Your task to perform on an android device: Search for Italian restaurants on Maps Image 0: 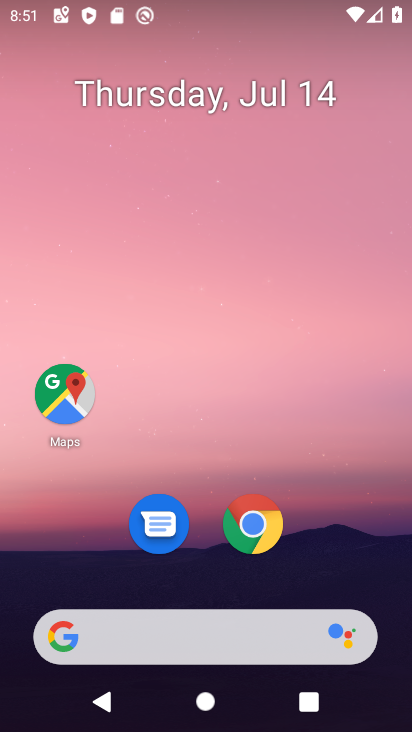
Step 0: click (64, 386)
Your task to perform on an android device: Search for Italian restaurants on Maps Image 1: 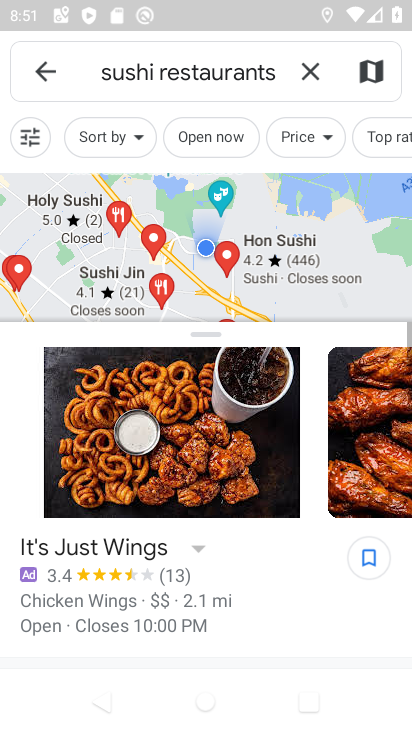
Step 1: click (309, 59)
Your task to perform on an android device: Search for Italian restaurants on Maps Image 2: 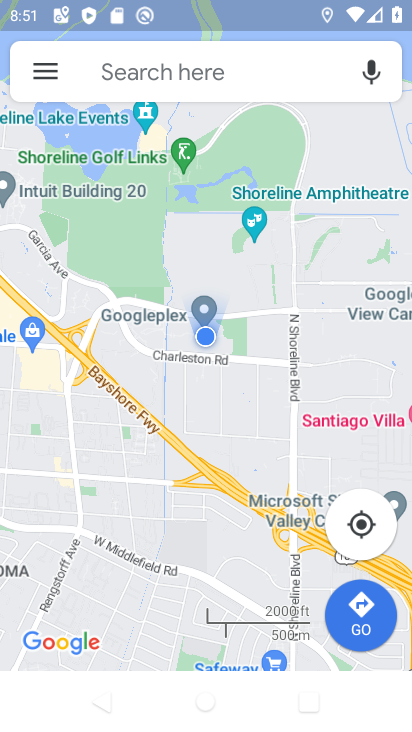
Step 2: click (279, 72)
Your task to perform on an android device: Search for Italian restaurants on Maps Image 3: 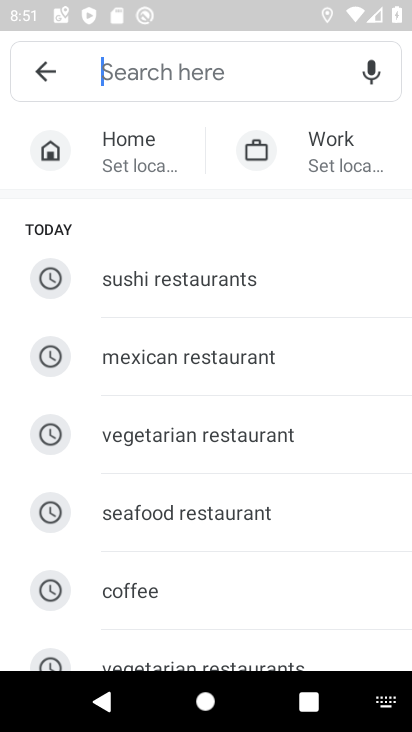
Step 3: drag from (221, 501) to (225, 300)
Your task to perform on an android device: Search for Italian restaurants on Maps Image 4: 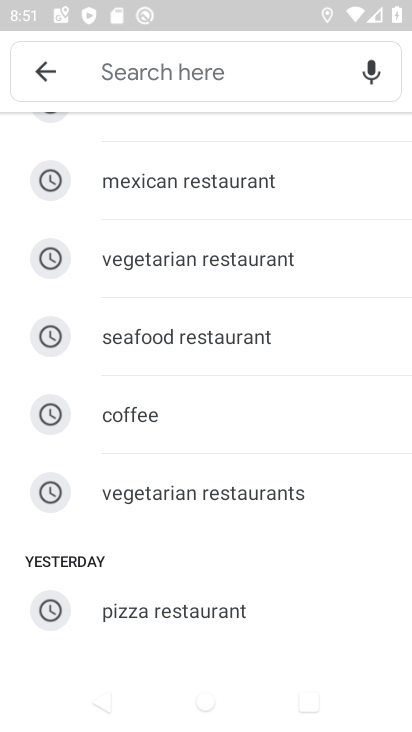
Step 4: drag from (206, 231) to (219, 552)
Your task to perform on an android device: Search for Italian restaurants on Maps Image 5: 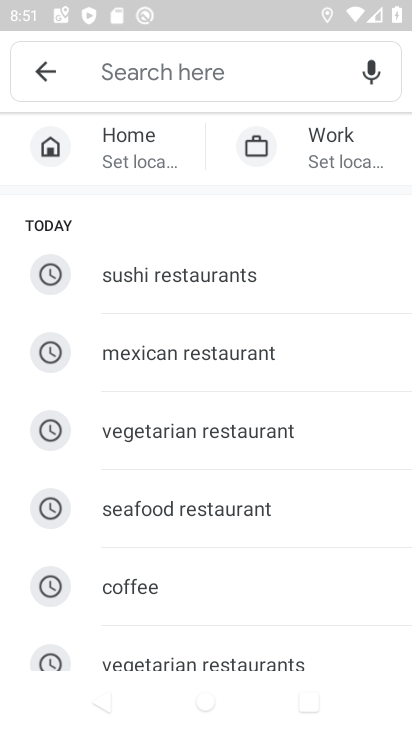
Step 5: click (228, 58)
Your task to perform on an android device: Search for Italian restaurants on Maps Image 6: 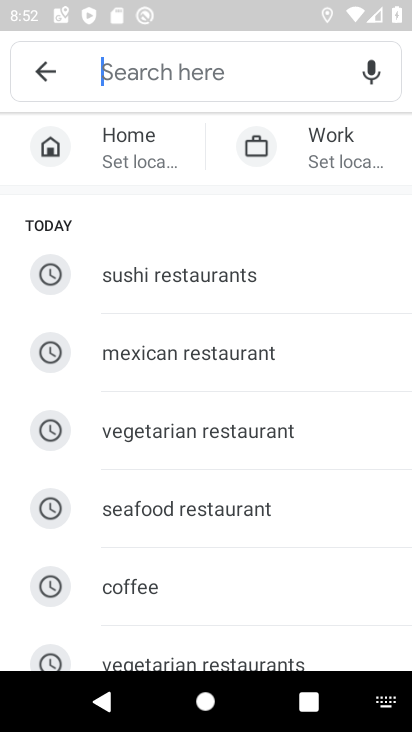
Step 6: type "italian restaurants"
Your task to perform on an android device: Search for Italian restaurants on Maps Image 7: 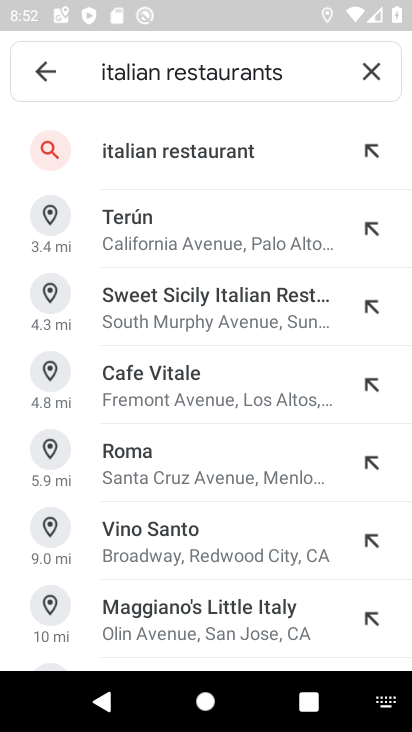
Step 7: click (145, 141)
Your task to perform on an android device: Search for Italian restaurants on Maps Image 8: 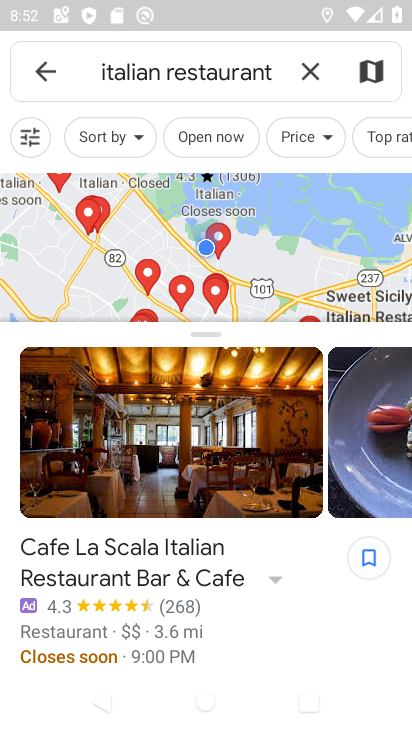
Step 8: task complete